Your task to perform on an android device: set an alarm Image 0: 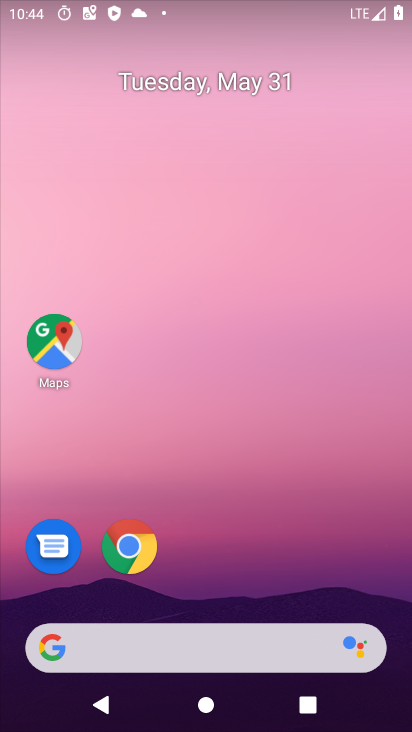
Step 0: drag from (314, 506) to (320, 27)
Your task to perform on an android device: set an alarm Image 1: 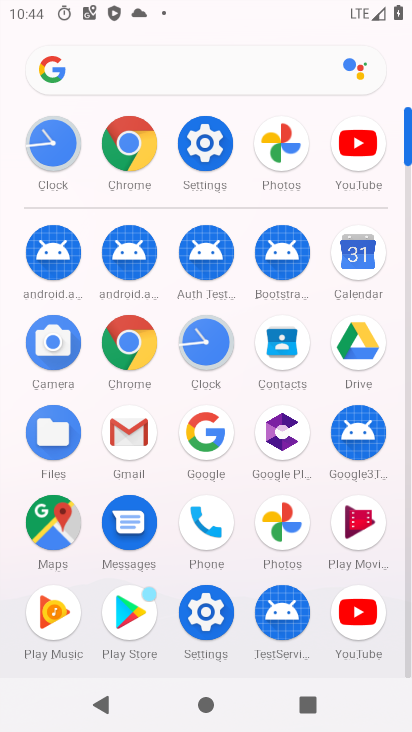
Step 1: click (35, 149)
Your task to perform on an android device: set an alarm Image 2: 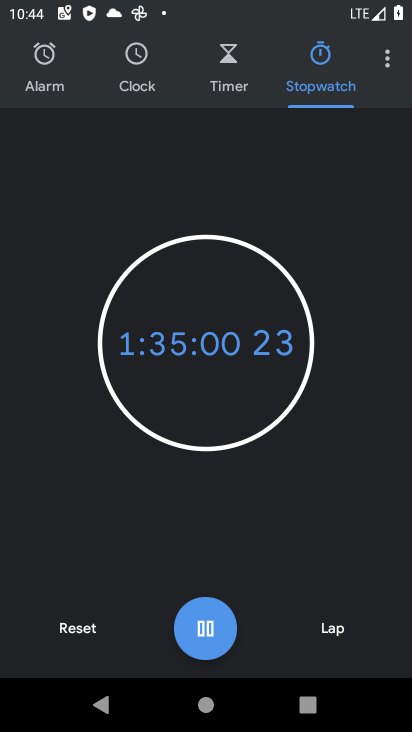
Step 2: click (53, 88)
Your task to perform on an android device: set an alarm Image 3: 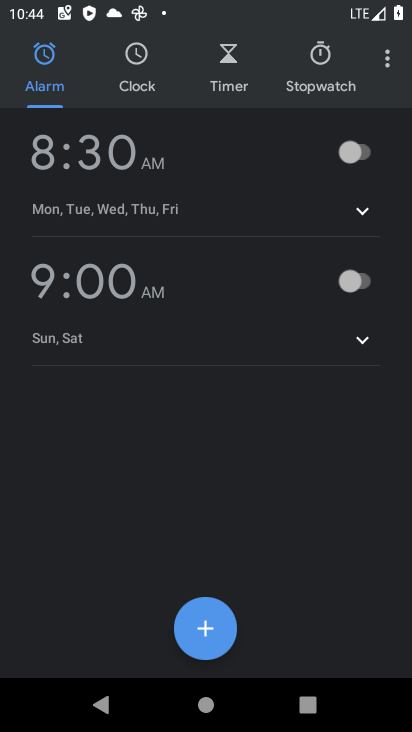
Step 3: click (310, 146)
Your task to perform on an android device: set an alarm Image 4: 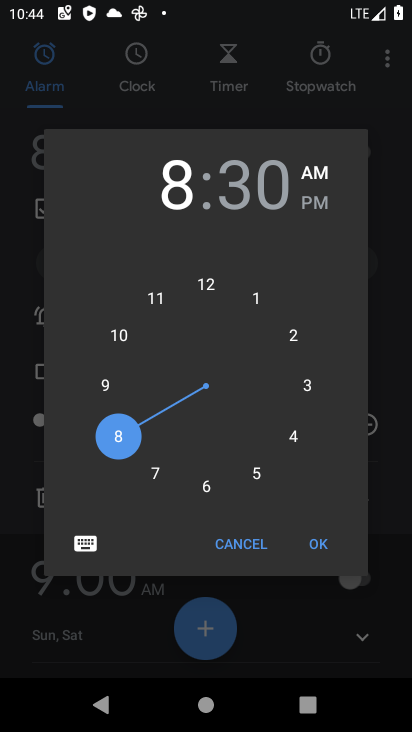
Step 4: click (338, 546)
Your task to perform on an android device: set an alarm Image 5: 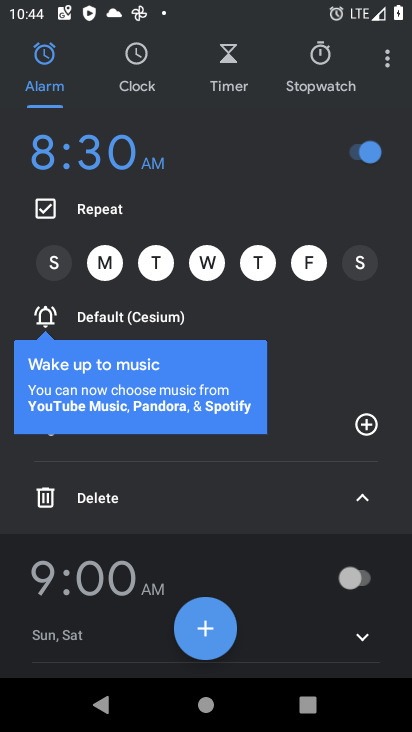
Step 5: task complete